Your task to perform on an android device: turn on notifications settings in the gmail app Image 0: 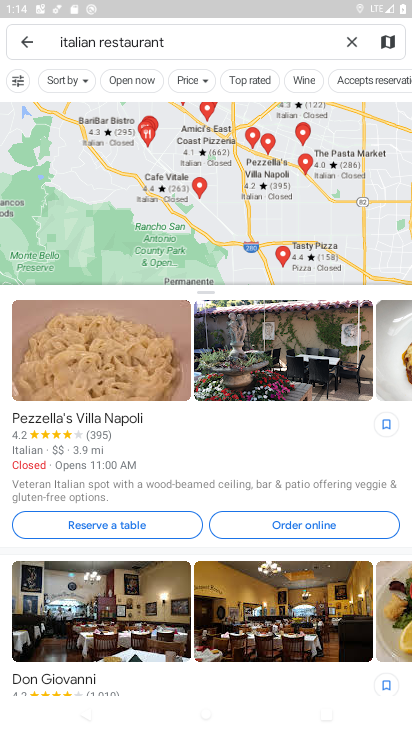
Step 0: press home button
Your task to perform on an android device: turn on notifications settings in the gmail app Image 1: 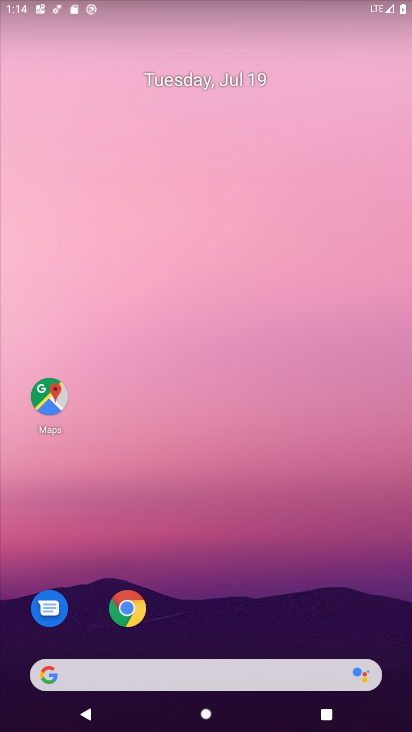
Step 1: drag from (254, 613) to (297, 5)
Your task to perform on an android device: turn on notifications settings in the gmail app Image 2: 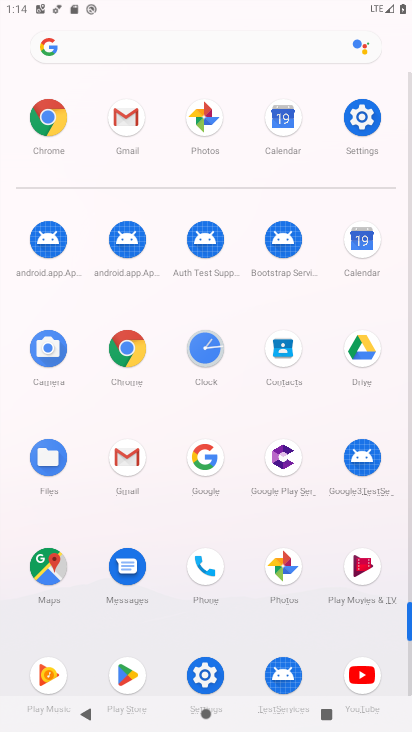
Step 2: click (131, 474)
Your task to perform on an android device: turn on notifications settings in the gmail app Image 3: 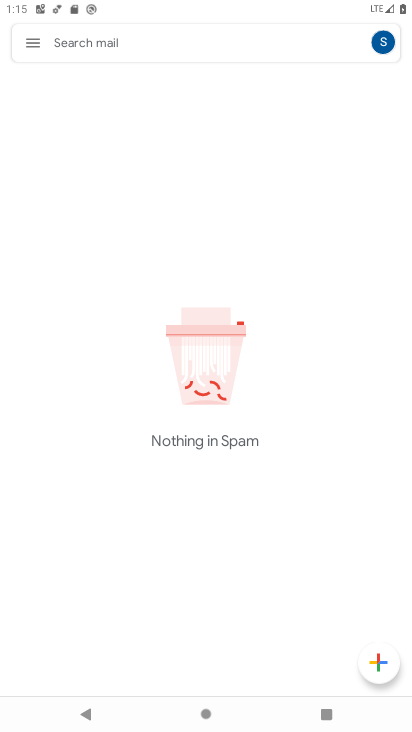
Step 3: click (30, 49)
Your task to perform on an android device: turn on notifications settings in the gmail app Image 4: 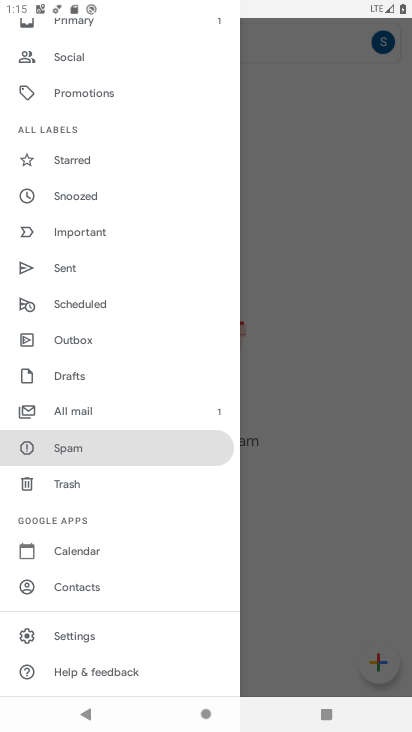
Step 4: click (84, 633)
Your task to perform on an android device: turn on notifications settings in the gmail app Image 5: 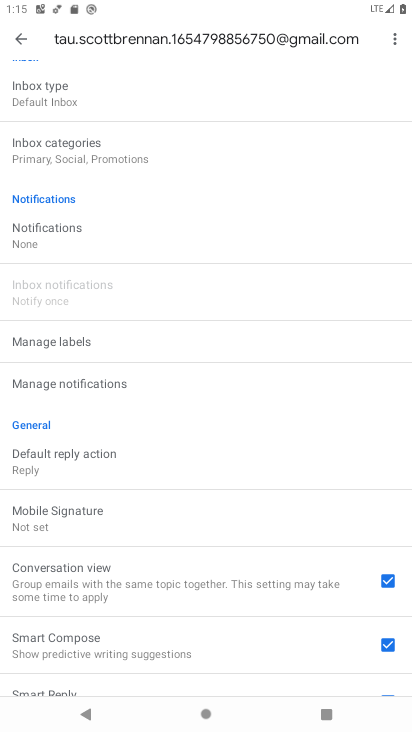
Step 5: drag from (102, 231) to (106, 518)
Your task to perform on an android device: turn on notifications settings in the gmail app Image 6: 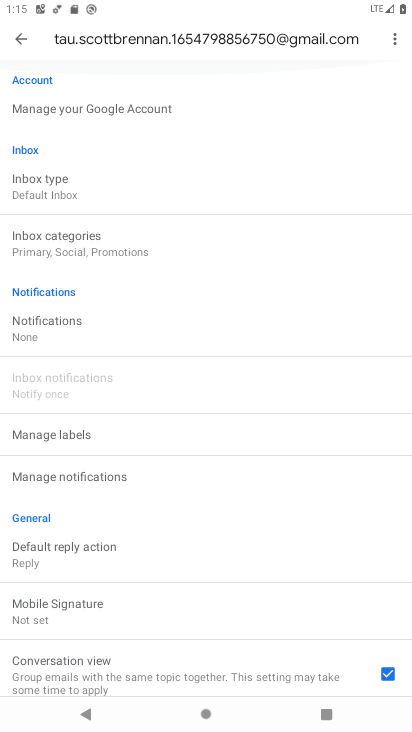
Step 6: click (89, 475)
Your task to perform on an android device: turn on notifications settings in the gmail app Image 7: 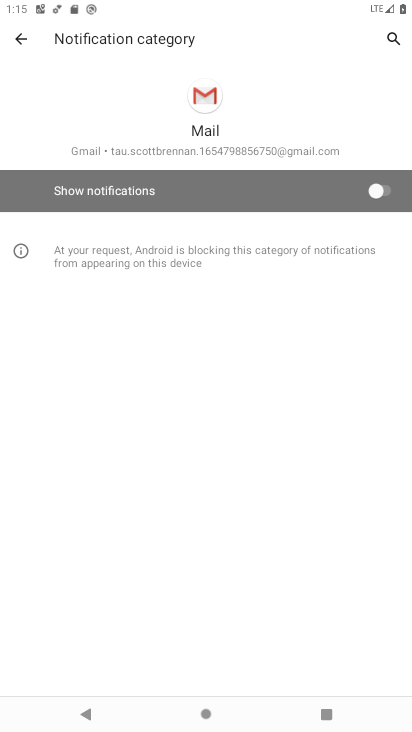
Step 7: click (368, 204)
Your task to perform on an android device: turn on notifications settings in the gmail app Image 8: 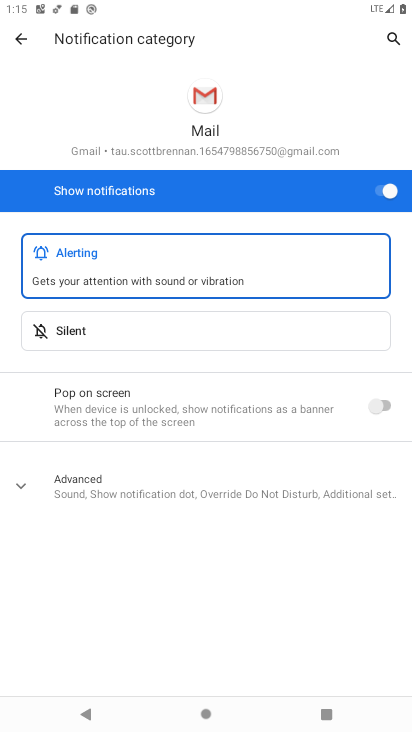
Step 8: task complete